Your task to perform on an android device: Open Youtube and go to the subscriptions tab Image 0: 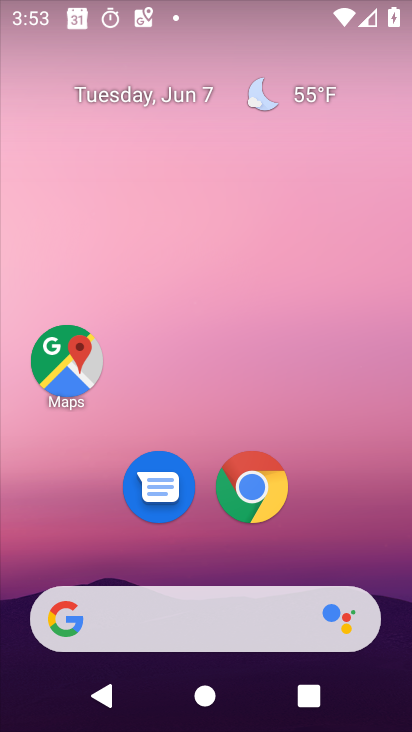
Step 0: drag from (252, 557) to (222, 95)
Your task to perform on an android device: Open Youtube and go to the subscriptions tab Image 1: 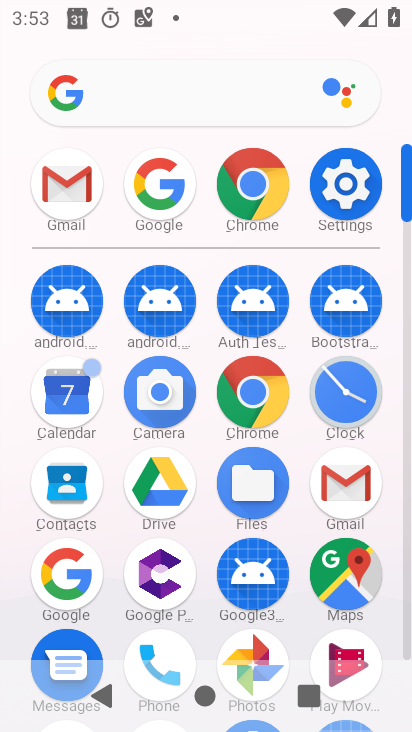
Step 1: drag from (300, 507) to (234, 119)
Your task to perform on an android device: Open Youtube and go to the subscriptions tab Image 2: 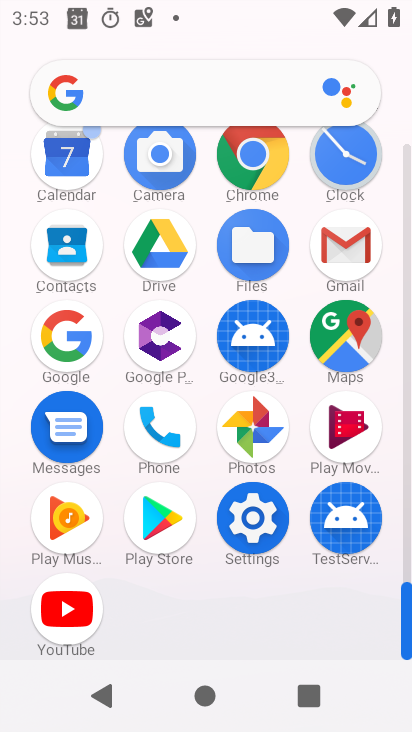
Step 2: click (65, 619)
Your task to perform on an android device: Open Youtube and go to the subscriptions tab Image 3: 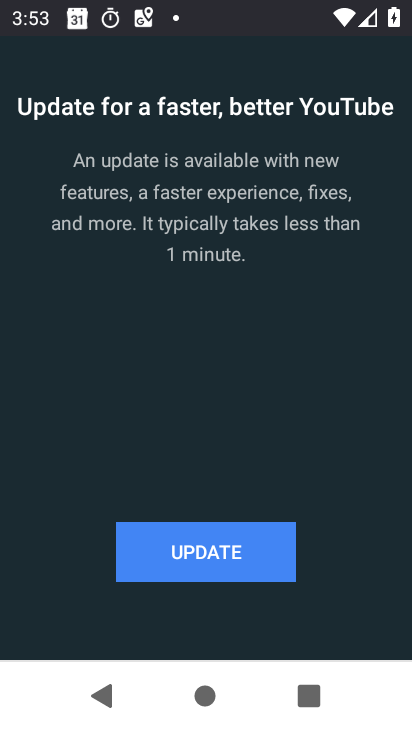
Step 3: click (193, 568)
Your task to perform on an android device: Open Youtube and go to the subscriptions tab Image 4: 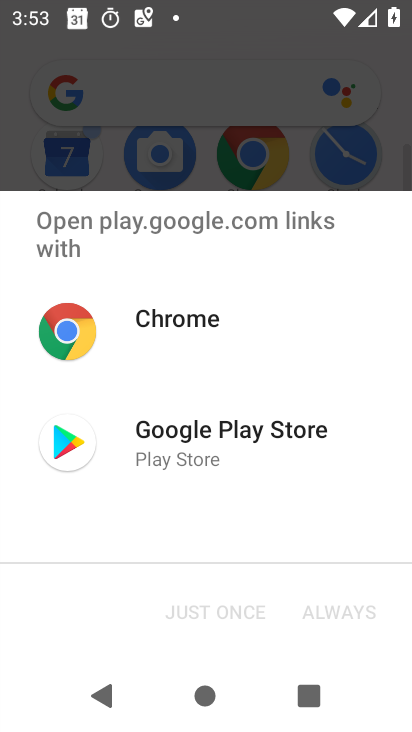
Step 4: click (200, 442)
Your task to perform on an android device: Open Youtube and go to the subscriptions tab Image 5: 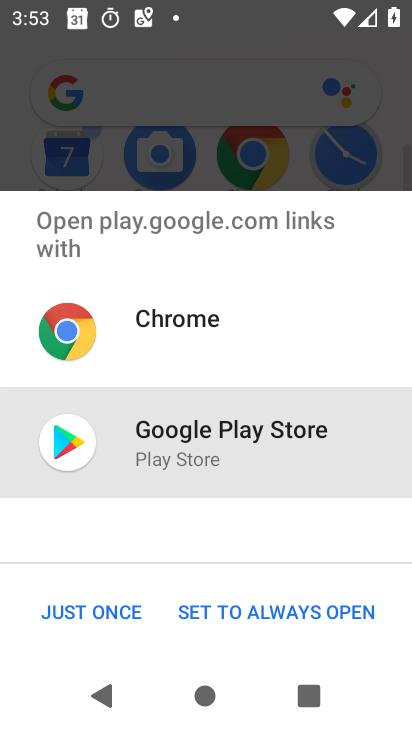
Step 5: click (133, 606)
Your task to perform on an android device: Open Youtube and go to the subscriptions tab Image 6: 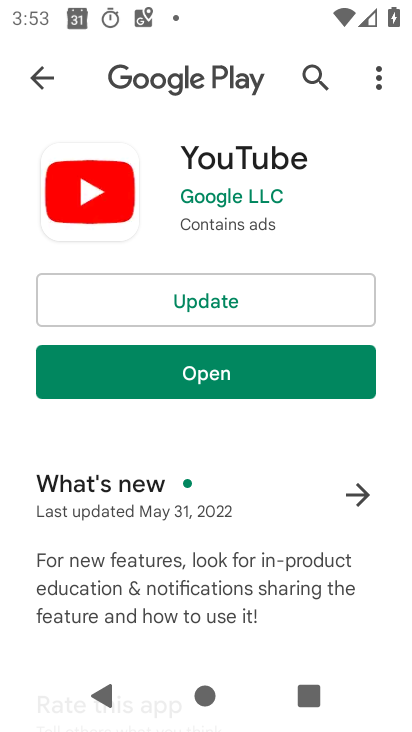
Step 6: click (220, 300)
Your task to perform on an android device: Open Youtube and go to the subscriptions tab Image 7: 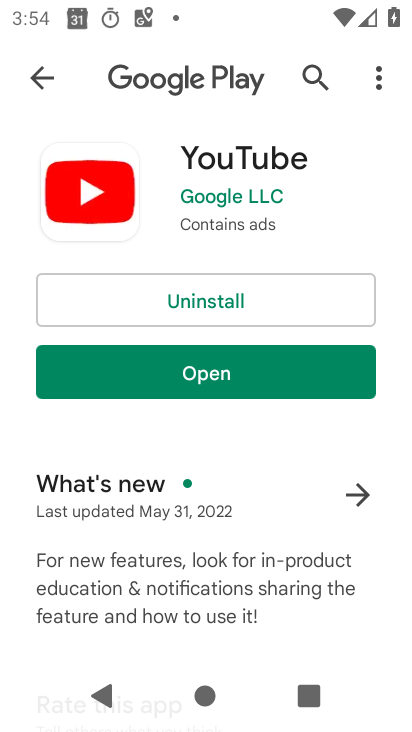
Step 7: click (198, 383)
Your task to perform on an android device: Open Youtube and go to the subscriptions tab Image 8: 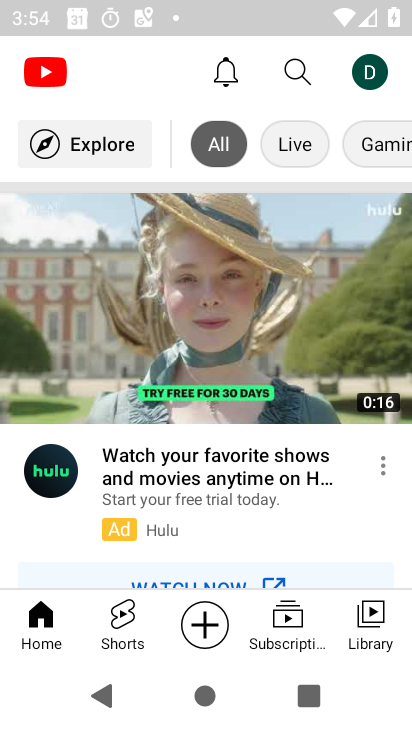
Step 8: click (300, 627)
Your task to perform on an android device: Open Youtube and go to the subscriptions tab Image 9: 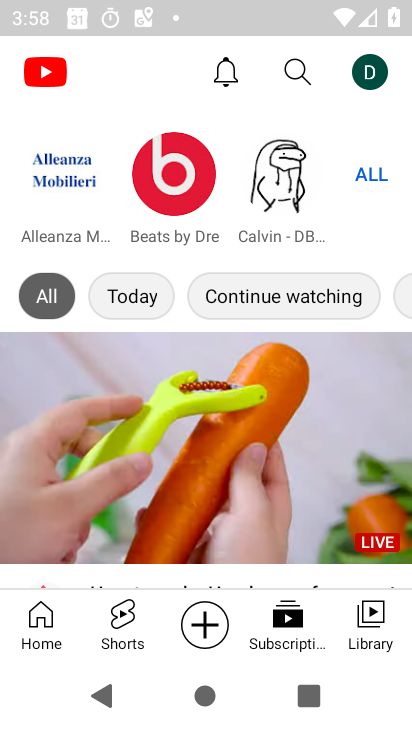
Step 9: task complete